Your task to perform on an android device: set the timer Image 0: 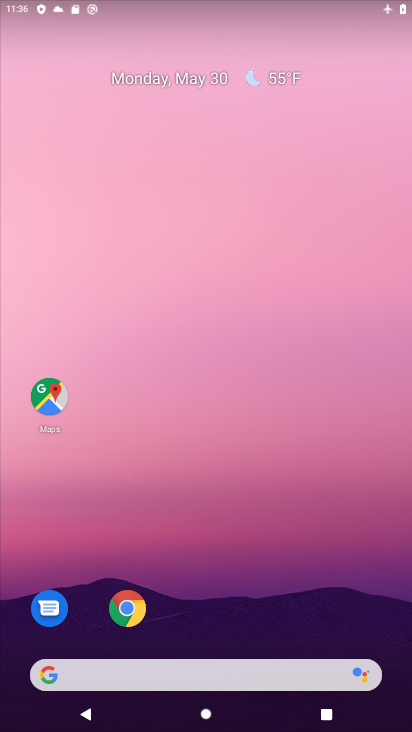
Step 0: drag from (241, 628) to (190, 15)
Your task to perform on an android device: set the timer Image 1: 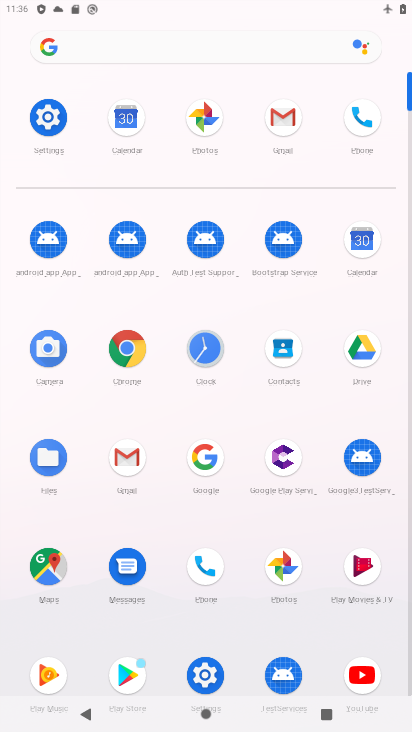
Step 1: click (202, 350)
Your task to perform on an android device: set the timer Image 2: 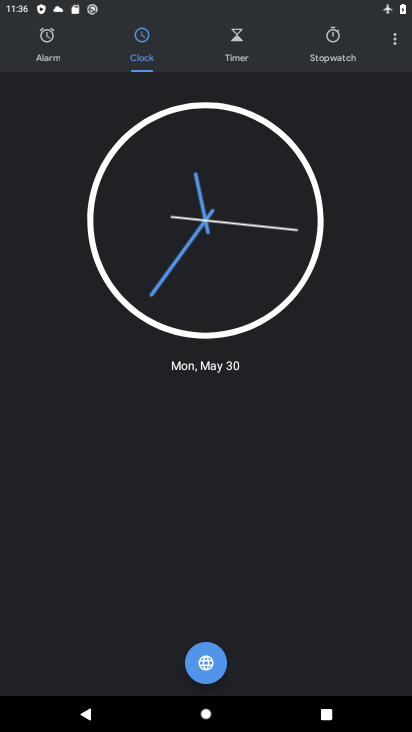
Step 2: click (239, 43)
Your task to perform on an android device: set the timer Image 3: 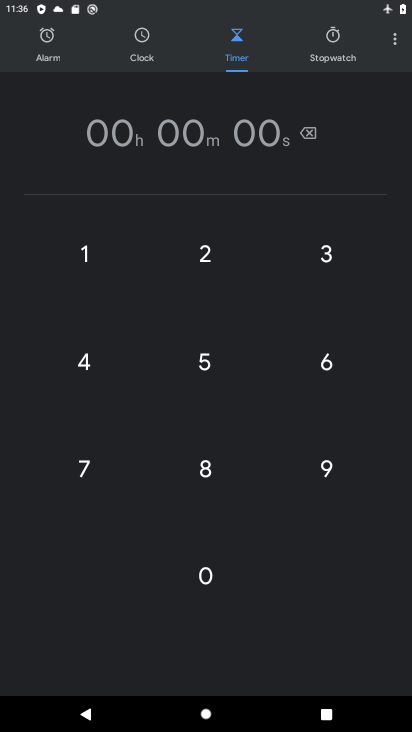
Step 3: click (92, 468)
Your task to perform on an android device: set the timer Image 4: 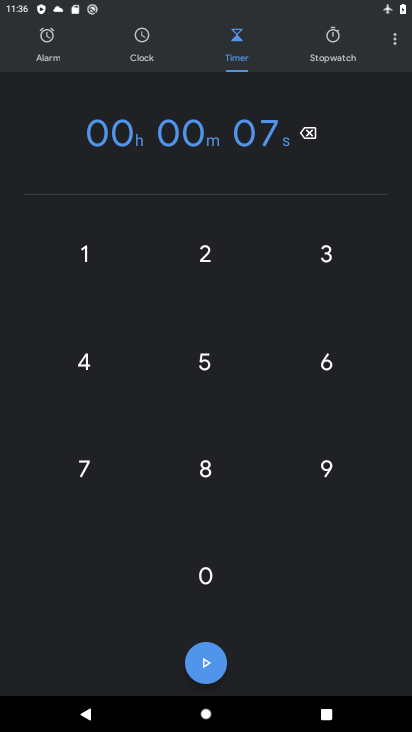
Step 4: click (207, 573)
Your task to perform on an android device: set the timer Image 5: 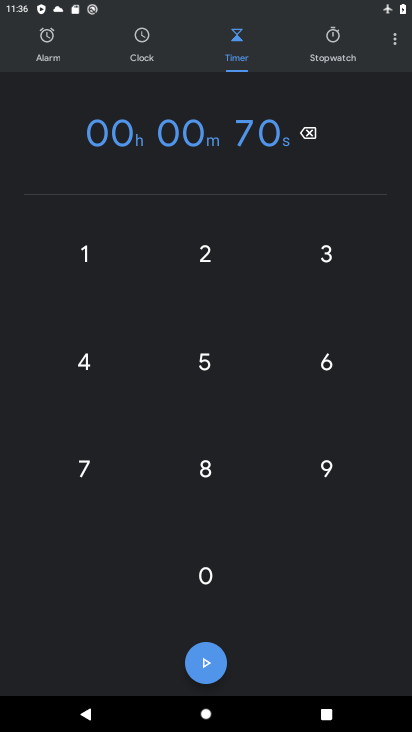
Step 5: click (210, 677)
Your task to perform on an android device: set the timer Image 6: 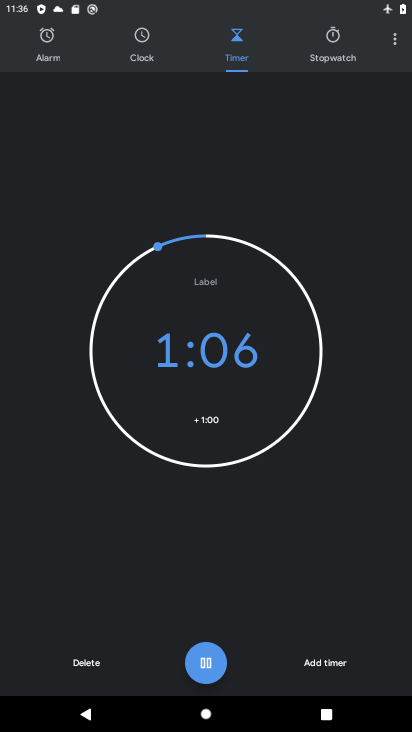
Step 6: task complete